Your task to perform on an android device: turn notification dots on Image 0: 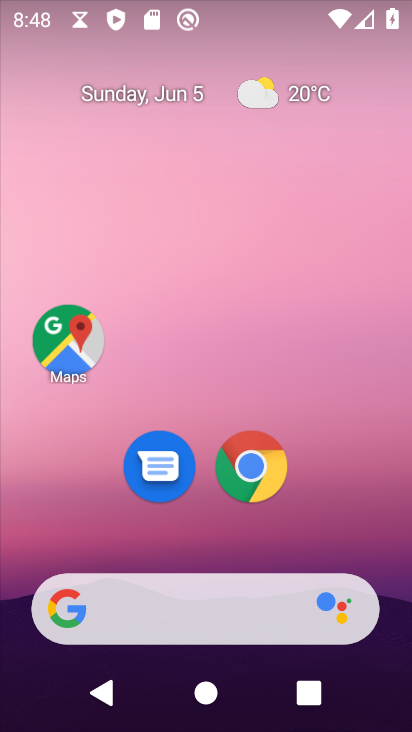
Step 0: drag from (221, 539) to (224, 113)
Your task to perform on an android device: turn notification dots on Image 1: 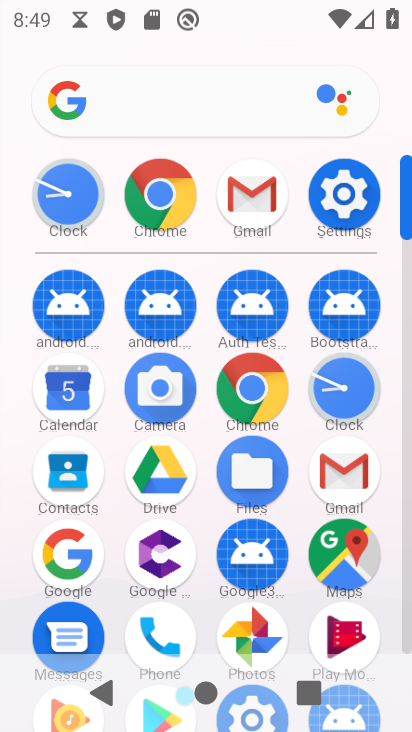
Step 1: drag from (209, 474) to (203, 542)
Your task to perform on an android device: turn notification dots on Image 2: 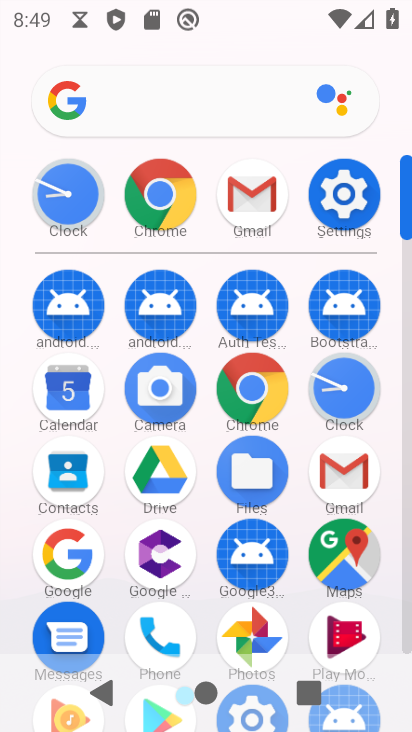
Step 2: click (345, 200)
Your task to perform on an android device: turn notification dots on Image 3: 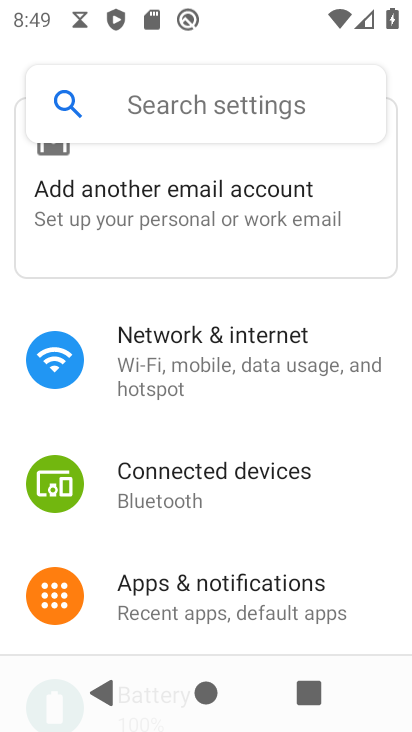
Step 3: click (241, 613)
Your task to perform on an android device: turn notification dots on Image 4: 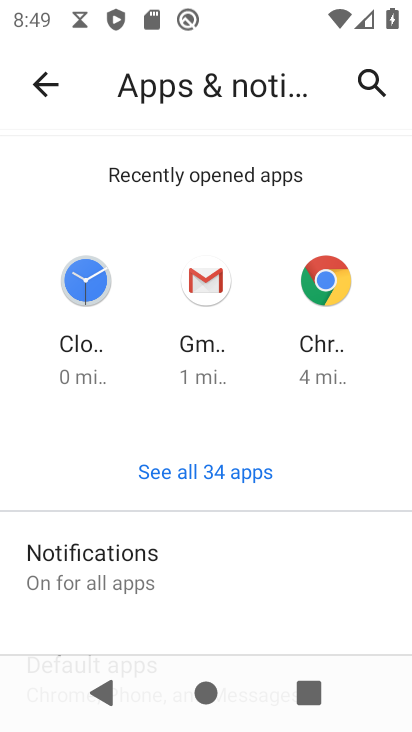
Step 4: click (117, 573)
Your task to perform on an android device: turn notification dots on Image 5: 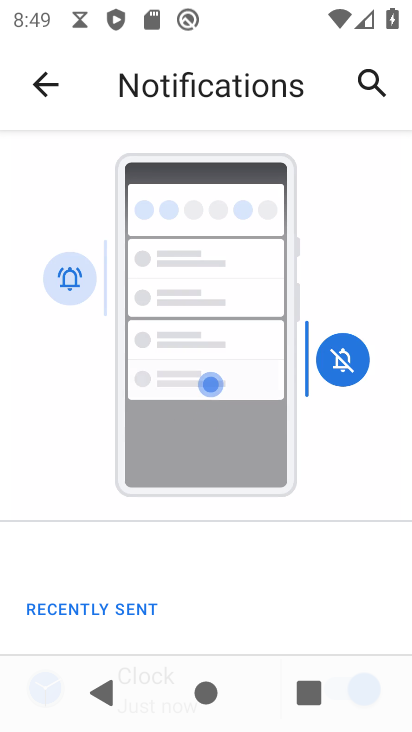
Step 5: drag from (126, 595) to (154, 224)
Your task to perform on an android device: turn notification dots on Image 6: 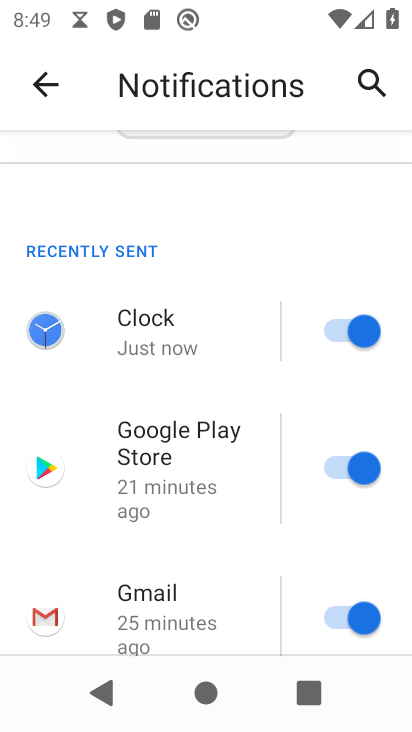
Step 6: drag from (193, 540) to (229, 100)
Your task to perform on an android device: turn notification dots on Image 7: 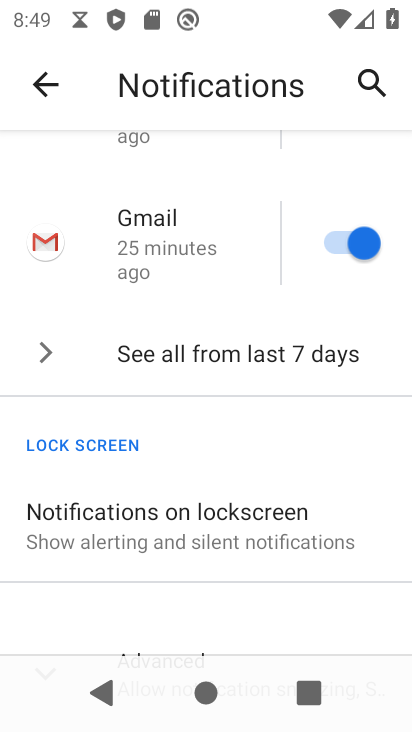
Step 7: drag from (246, 492) to (240, 174)
Your task to perform on an android device: turn notification dots on Image 8: 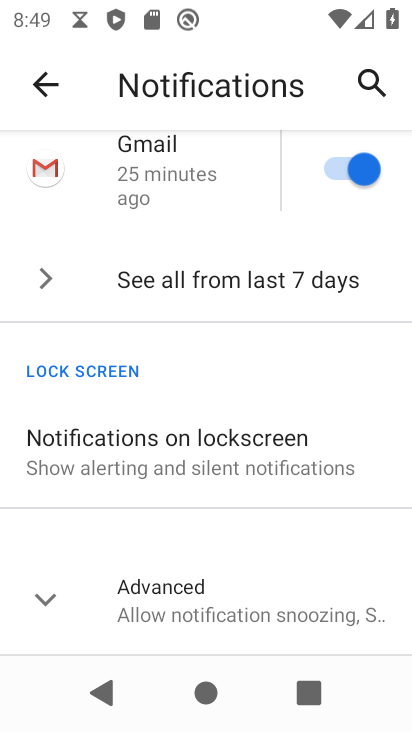
Step 8: click (163, 601)
Your task to perform on an android device: turn notification dots on Image 9: 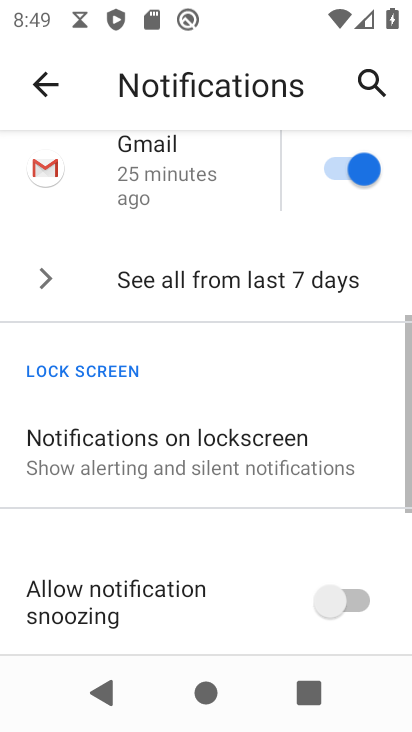
Step 9: task complete